Your task to perform on an android device: set the stopwatch Image 0: 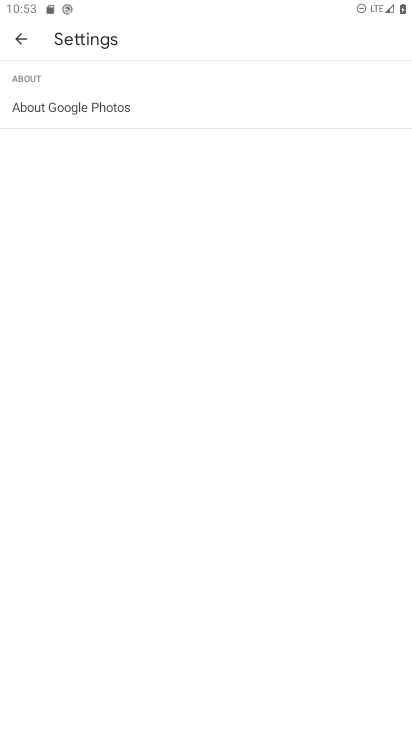
Step 0: press home button
Your task to perform on an android device: set the stopwatch Image 1: 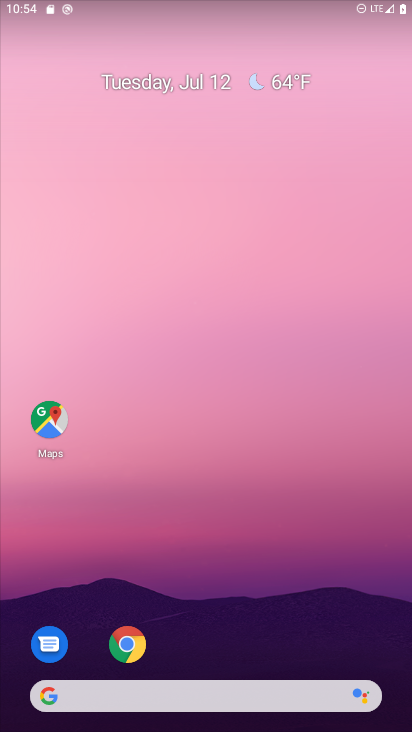
Step 1: drag from (241, 638) to (238, 141)
Your task to perform on an android device: set the stopwatch Image 2: 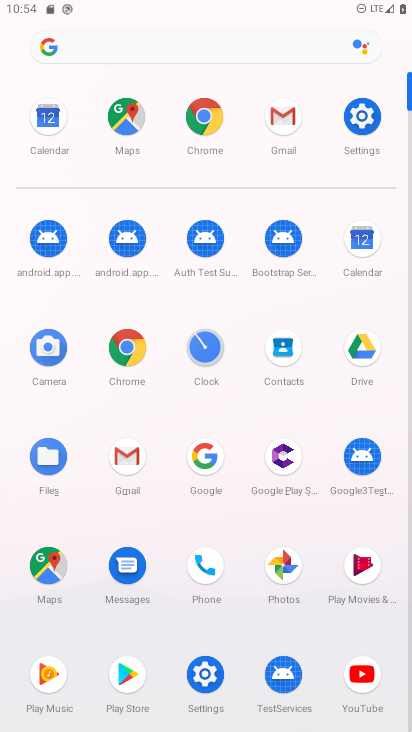
Step 2: click (206, 338)
Your task to perform on an android device: set the stopwatch Image 3: 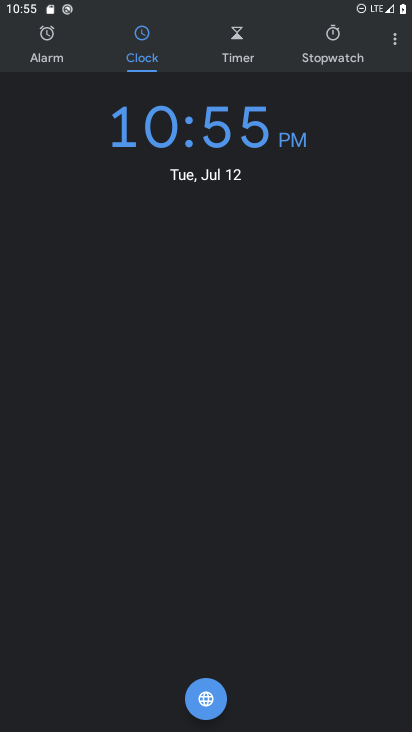
Step 3: click (396, 50)
Your task to perform on an android device: set the stopwatch Image 4: 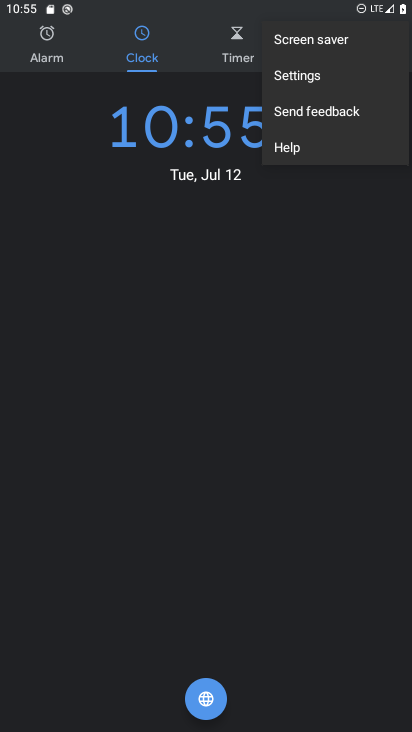
Step 4: click (205, 61)
Your task to perform on an android device: set the stopwatch Image 5: 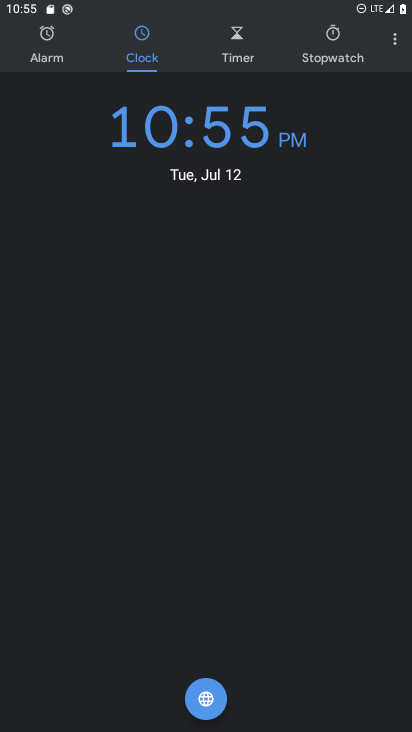
Step 5: click (339, 65)
Your task to perform on an android device: set the stopwatch Image 6: 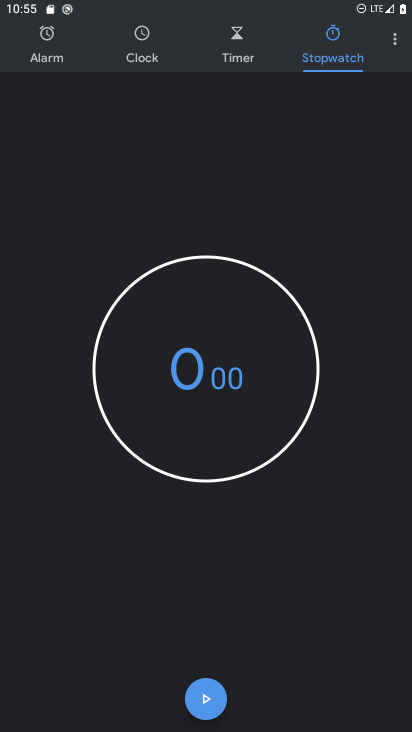
Step 6: task complete